Your task to perform on an android device: Go to Google maps Image 0: 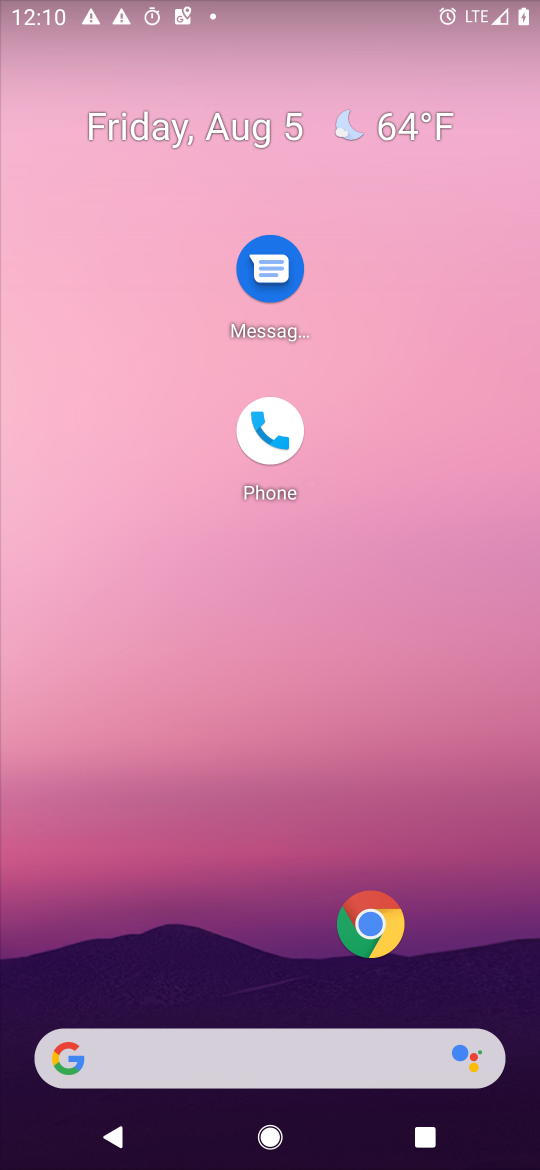
Step 0: drag from (219, 927) to (269, 392)
Your task to perform on an android device: Go to Google maps Image 1: 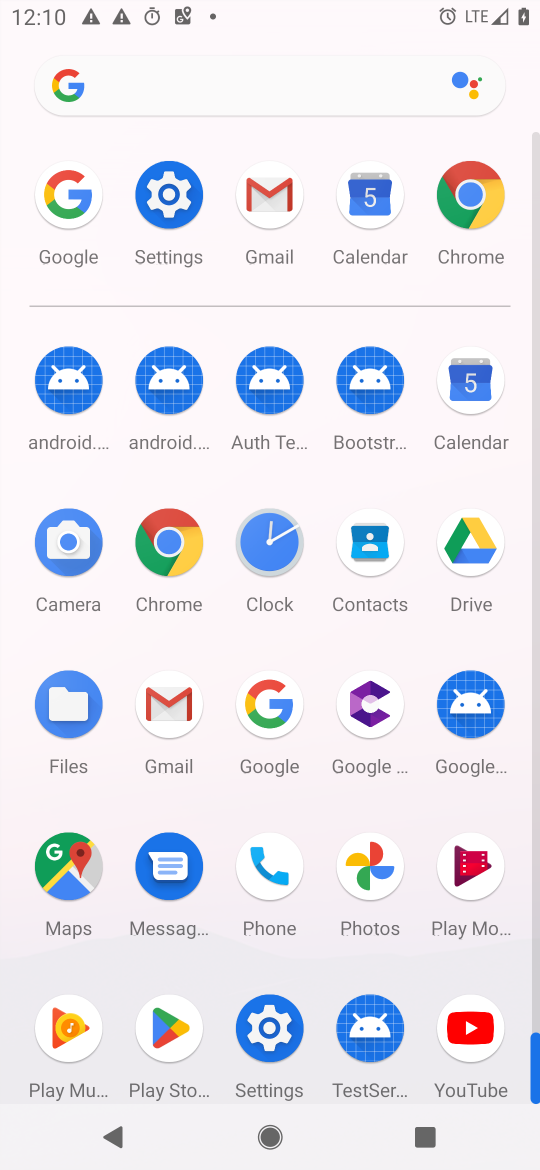
Step 1: click (70, 841)
Your task to perform on an android device: Go to Google maps Image 2: 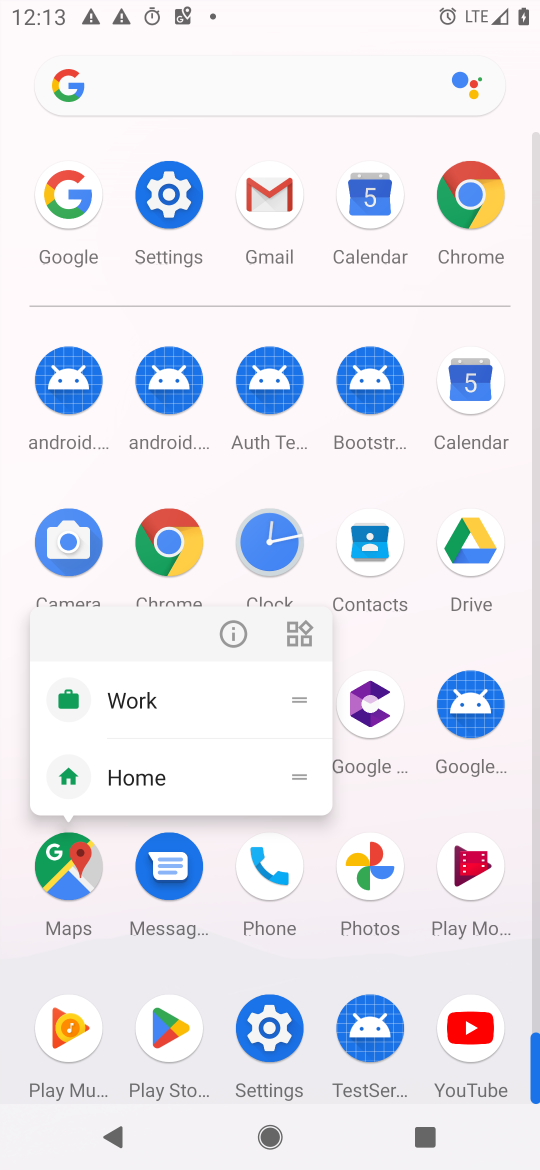
Step 2: click (224, 635)
Your task to perform on an android device: Go to Google maps Image 3: 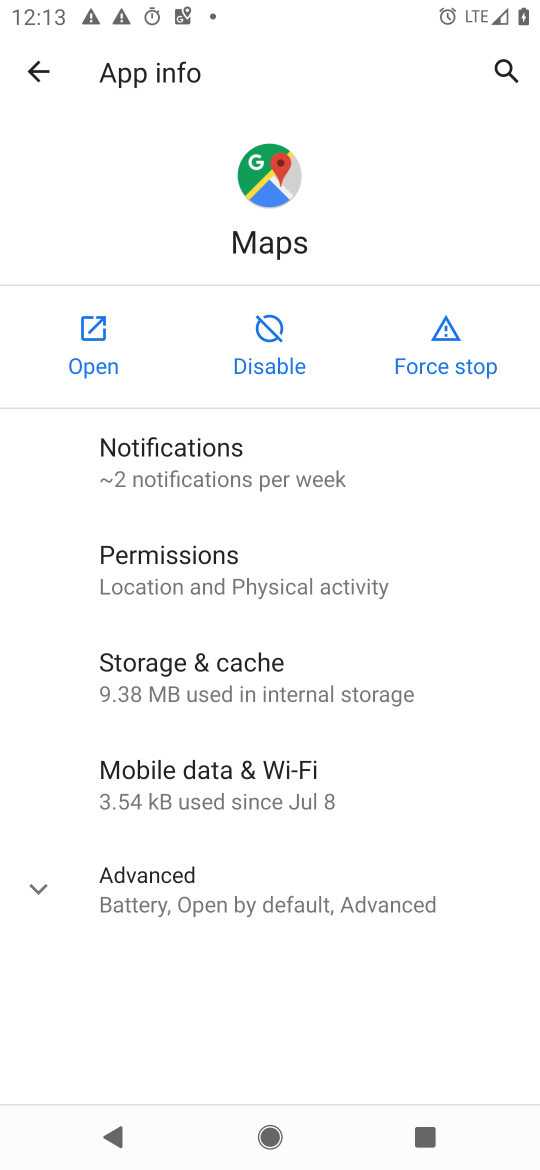
Step 3: click (106, 338)
Your task to perform on an android device: Go to Google maps Image 4: 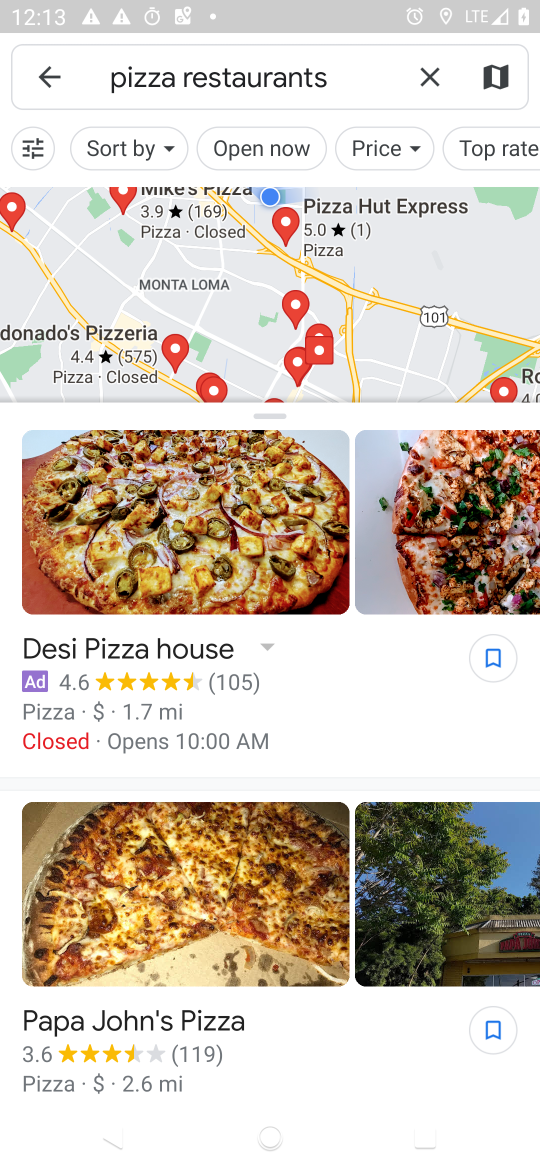
Step 4: click (430, 73)
Your task to perform on an android device: Go to Google maps Image 5: 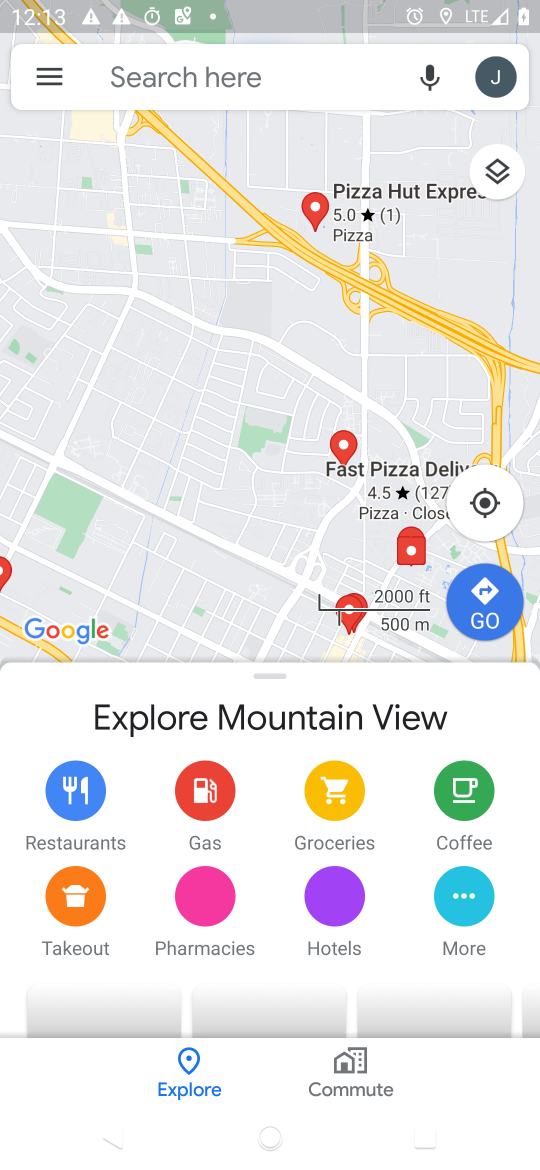
Step 5: click (43, 70)
Your task to perform on an android device: Go to Google maps Image 6: 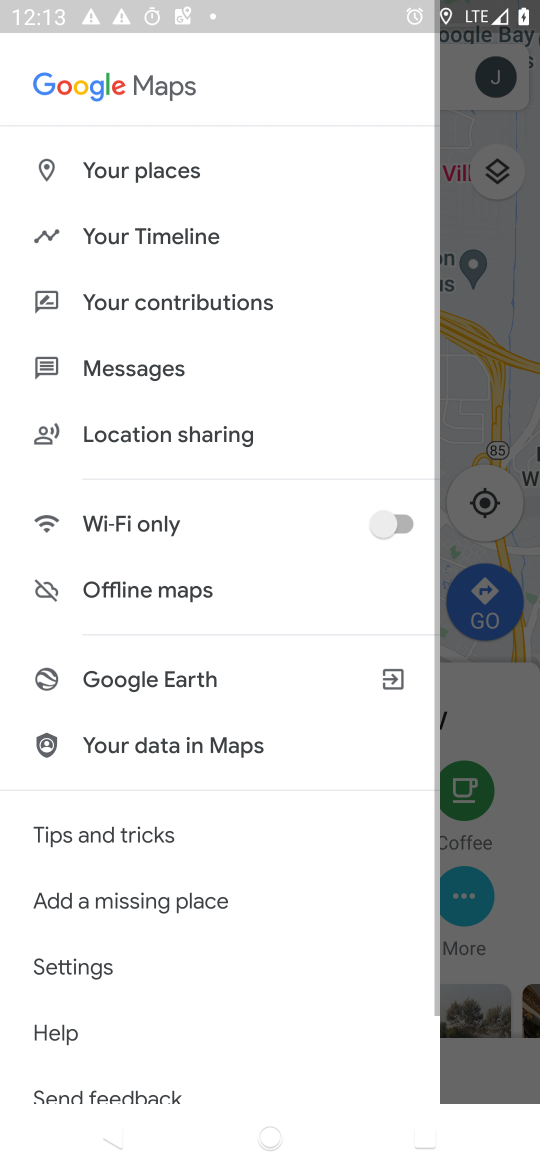
Step 6: task complete